Your task to perform on an android device: turn on improve location accuracy Image 0: 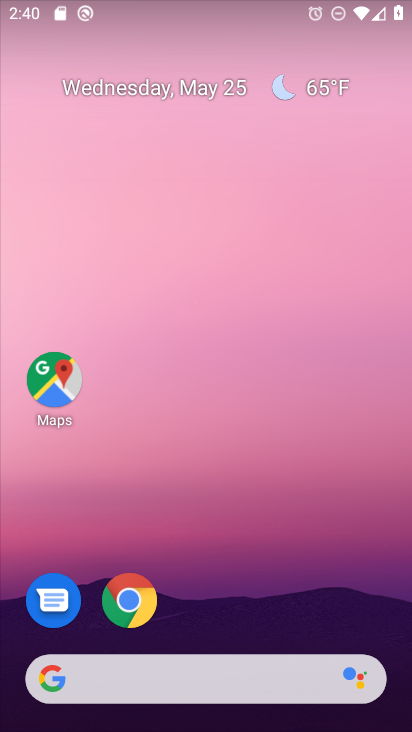
Step 0: drag from (298, 349) to (291, 100)
Your task to perform on an android device: turn on improve location accuracy Image 1: 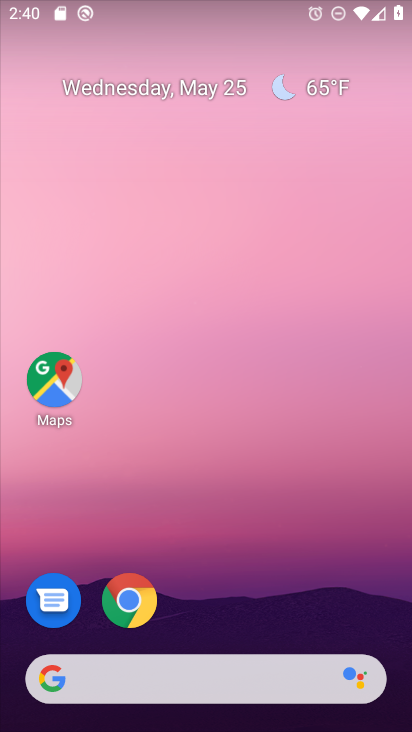
Step 1: drag from (215, 404) to (219, 3)
Your task to perform on an android device: turn on improve location accuracy Image 2: 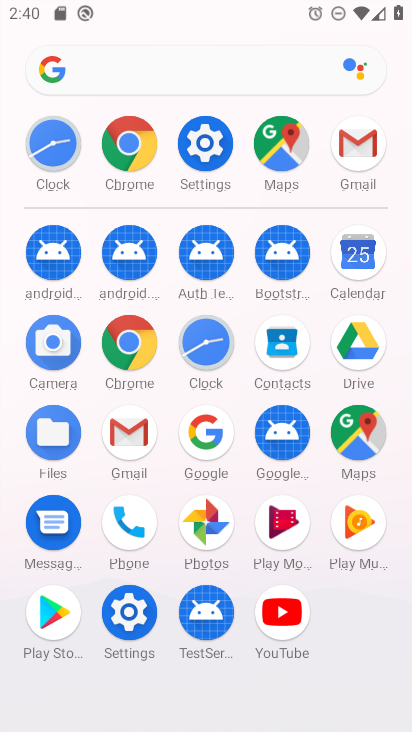
Step 2: click (204, 116)
Your task to perform on an android device: turn on improve location accuracy Image 3: 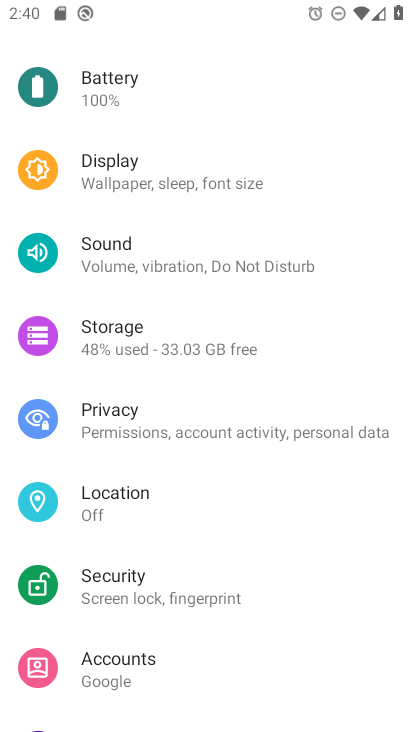
Step 3: click (156, 460)
Your task to perform on an android device: turn on improve location accuracy Image 4: 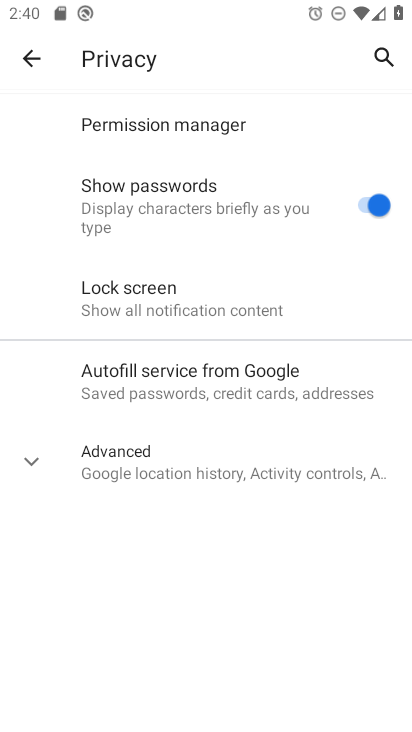
Step 4: click (55, 73)
Your task to perform on an android device: turn on improve location accuracy Image 5: 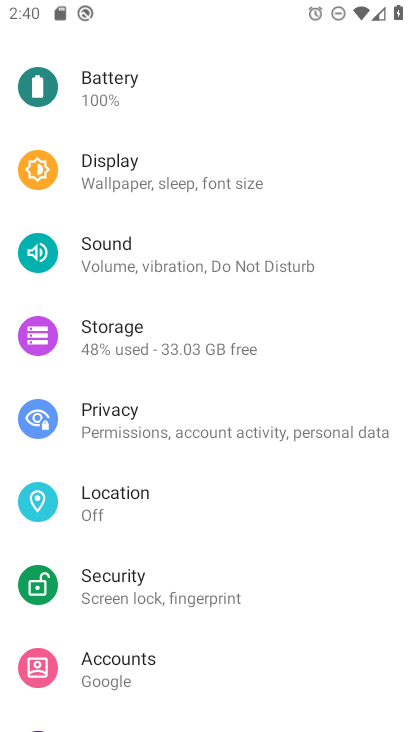
Step 5: click (152, 503)
Your task to perform on an android device: turn on improve location accuracy Image 6: 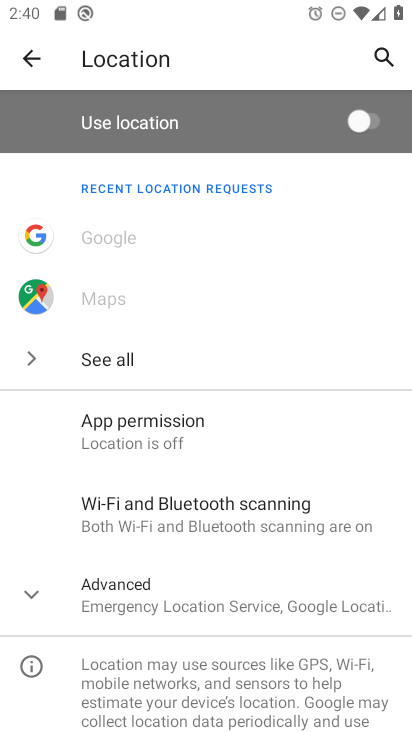
Step 6: click (219, 588)
Your task to perform on an android device: turn on improve location accuracy Image 7: 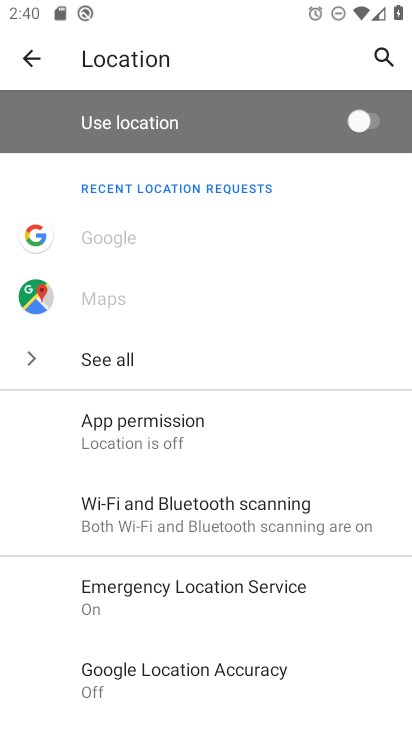
Step 7: click (262, 679)
Your task to perform on an android device: turn on improve location accuracy Image 8: 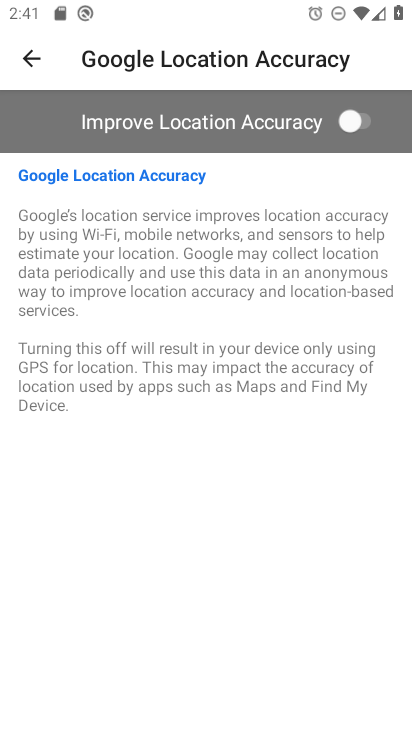
Step 8: click (336, 128)
Your task to perform on an android device: turn on improve location accuracy Image 9: 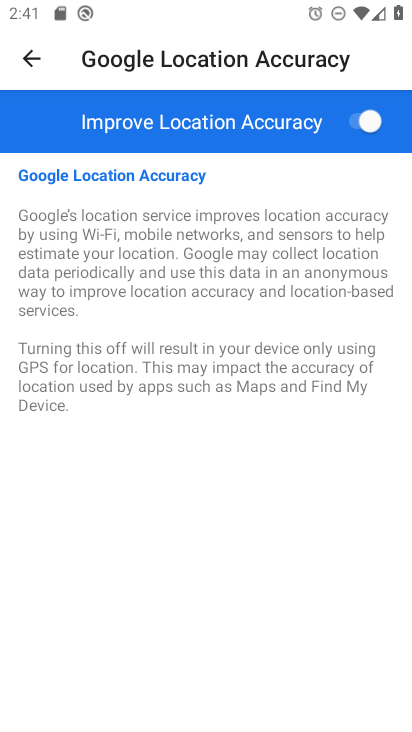
Step 9: task complete